Your task to perform on an android device: Search for Mexican restaurants on Maps Image 0: 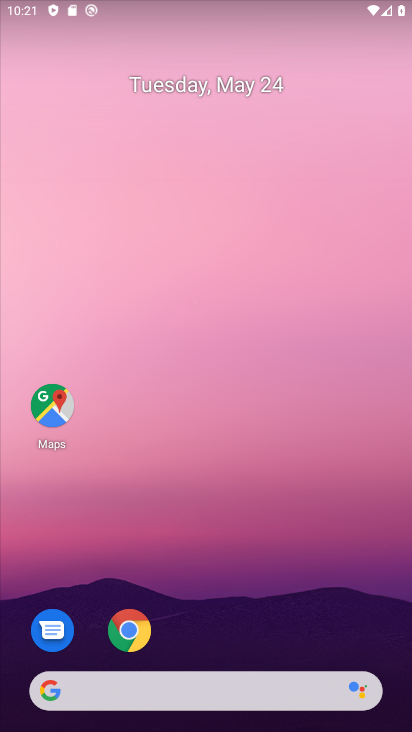
Step 0: press home button
Your task to perform on an android device: Search for Mexican restaurants on Maps Image 1: 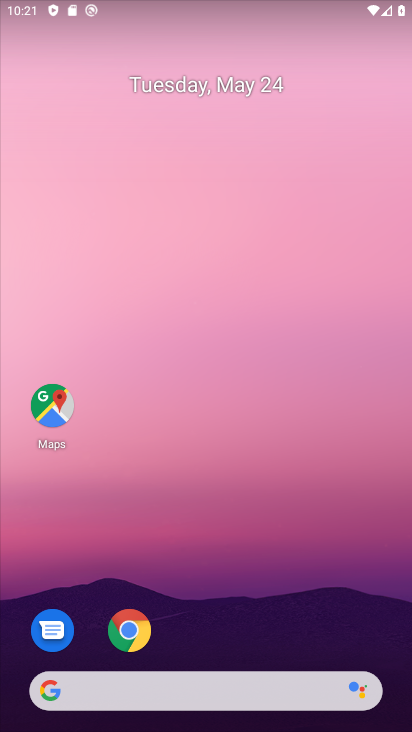
Step 1: drag from (216, 651) to (231, 34)
Your task to perform on an android device: Search for Mexican restaurants on Maps Image 2: 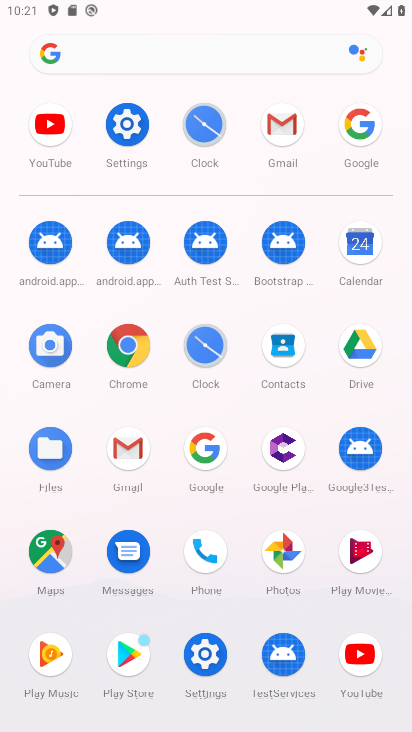
Step 2: click (48, 547)
Your task to perform on an android device: Search for Mexican restaurants on Maps Image 3: 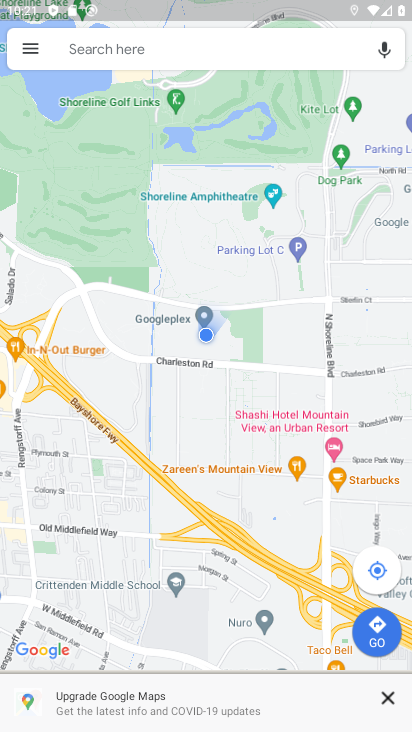
Step 3: click (118, 45)
Your task to perform on an android device: Search for Mexican restaurants on Maps Image 4: 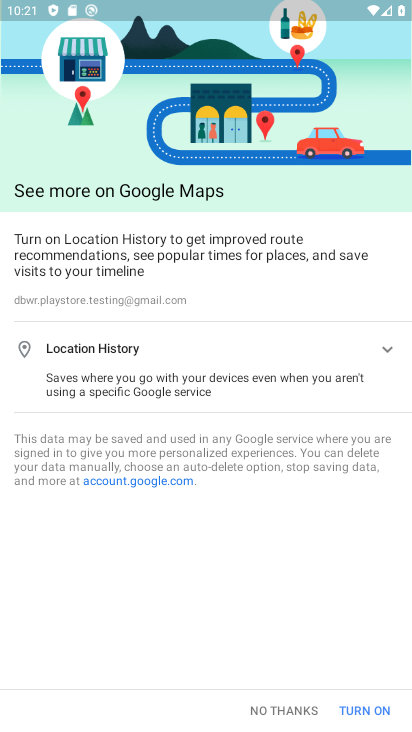
Step 4: click (363, 713)
Your task to perform on an android device: Search for Mexican restaurants on Maps Image 5: 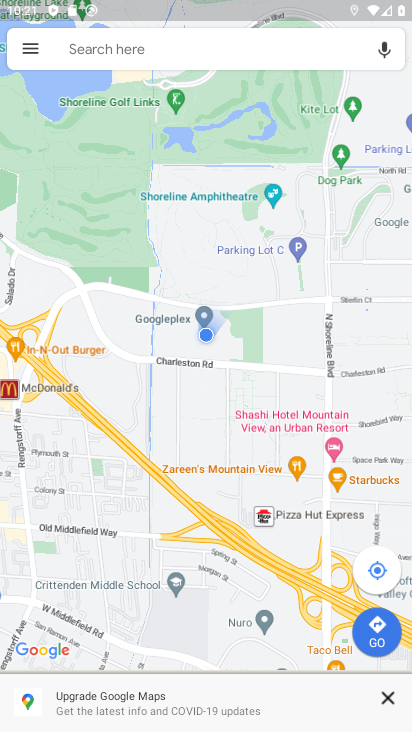
Step 5: click (387, 701)
Your task to perform on an android device: Search for Mexican restaurants on Maps Image 6: 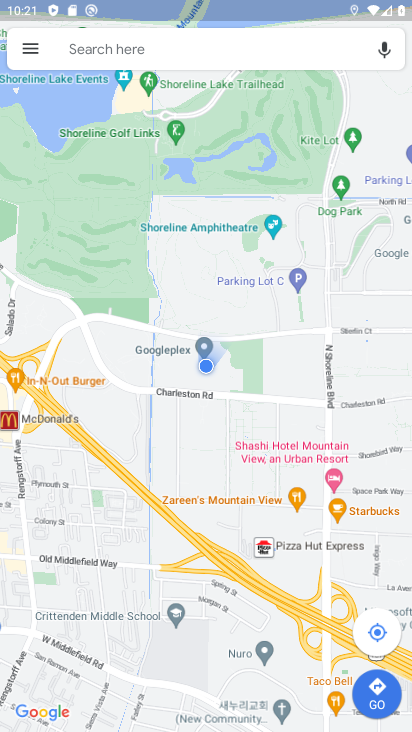
Step 6: click (107, 41)
Your task to perform on an android device: Search for Mexican restaurants on Maps Image 7: 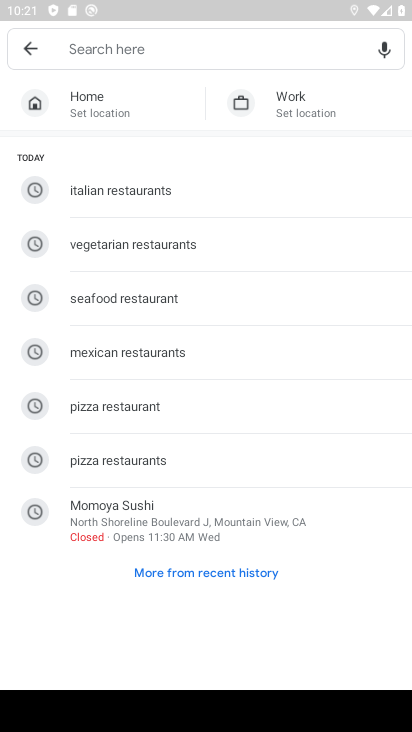
Step 7: click (125, 353)
Your task to perform on an android device: Search for Mexican restaurants on Maps Image 8: 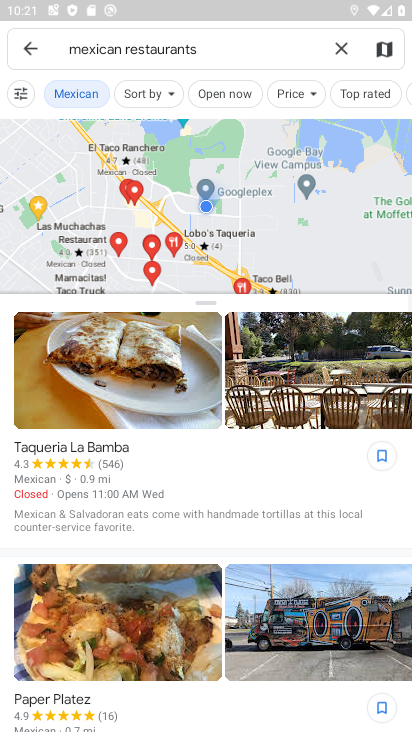
Step 8: task complete